Your task to perform on an android device: Open calendar and show me the second week of next month Image 0: 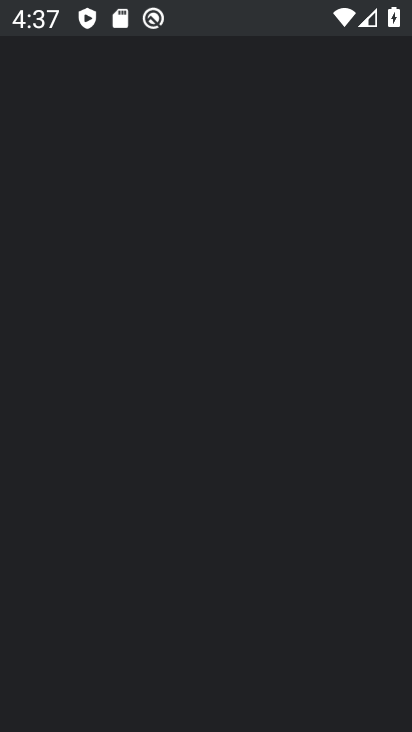
Step 0: drag from (398, 405) to (410, 236)
Your task to perform on an android device: Open calendar and show me the second week of next month Image 1: 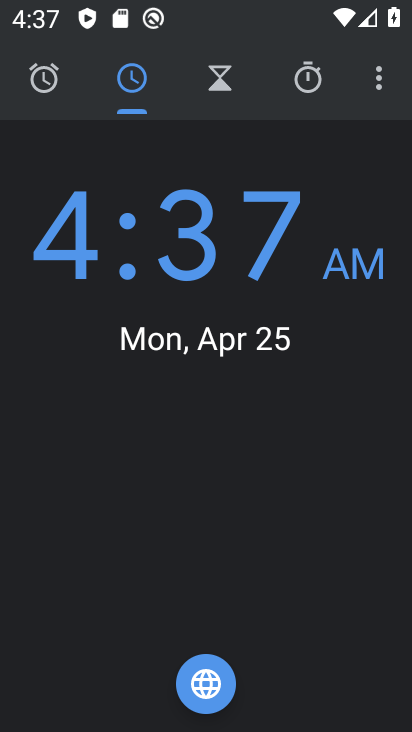
Step 1: press home button
Your task to perform on an android device: Open calendar and show me the second week of next month Image 2: 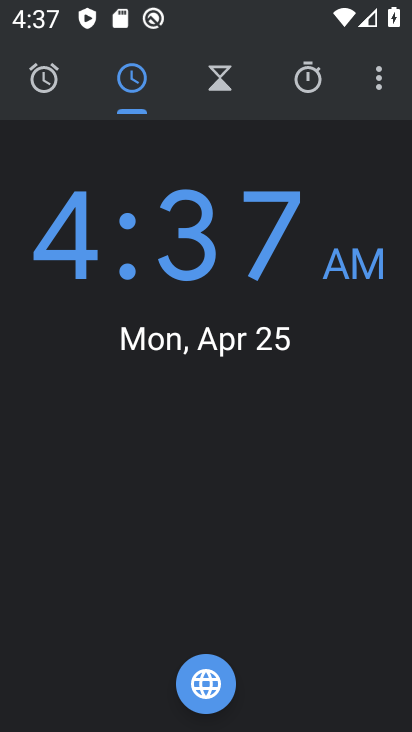
Step 2: drag from (410, 236) to (411, 463)
Your task to perform on an android device: Open calendar and show me the second week of next month Image 3: 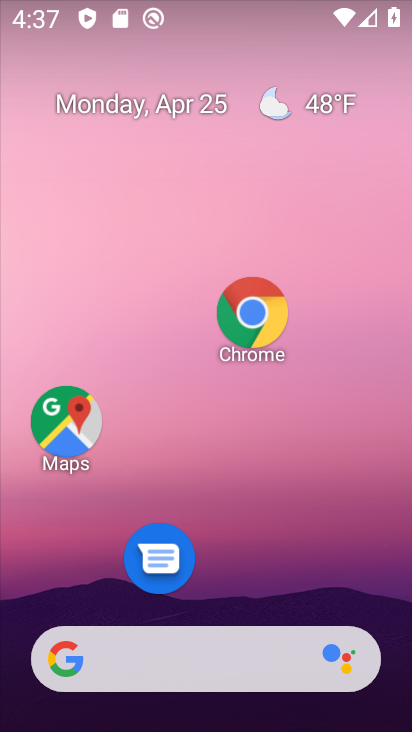
Step 3: drag from (343, 521) to (410, 77)
Your task to perform on an android device: Open calendar and show me the second week of next month Image 4: 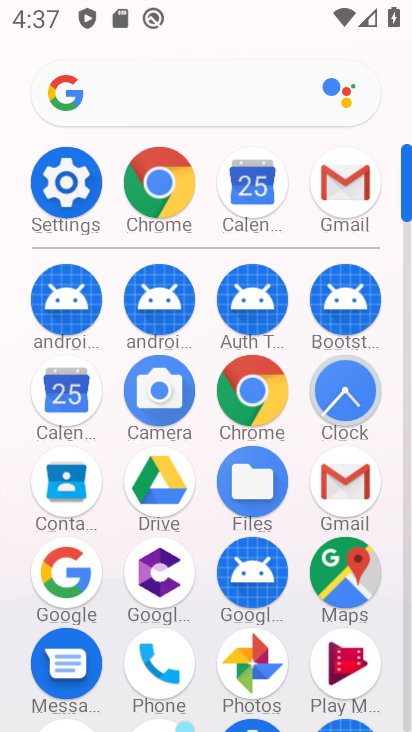
Step 4: click (60, 393)
Your task to perform on an android device: Open calendar and show me the second week of next month Image 5: 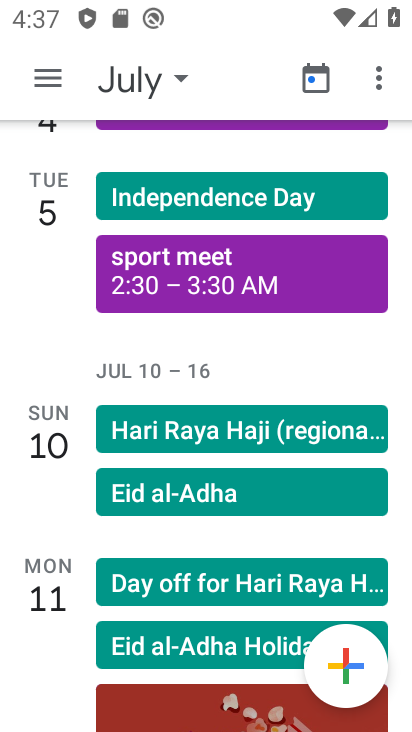
Step 5: click (166, 103)
Your task to perform on an android device: Open calendar and show me the second week of next month Image 6: 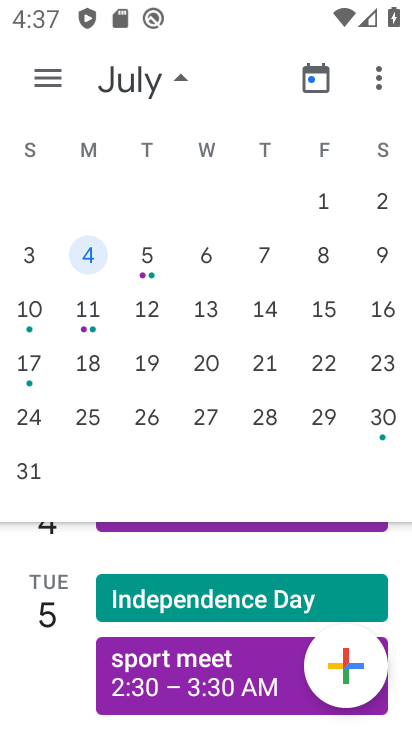
Step 6: drag from (266, 375) to (10, 649)
Your task to perform on an android device: Open calendar and show me the second week of next month Image 7: 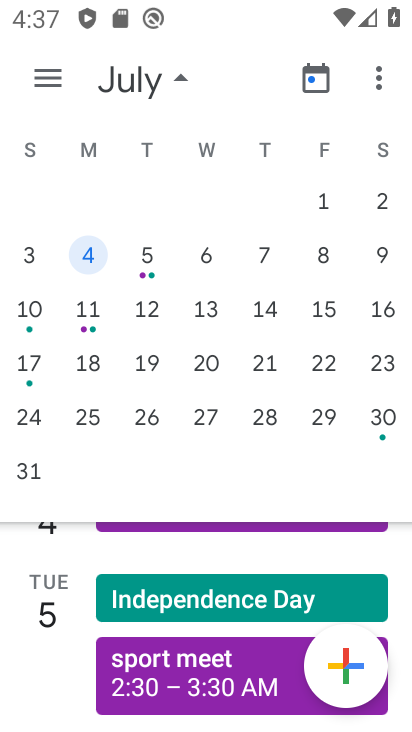
Step 7: click (266, 315)
Your task to perform on an android device: Open calendar and show me the second week of next month Image 8: 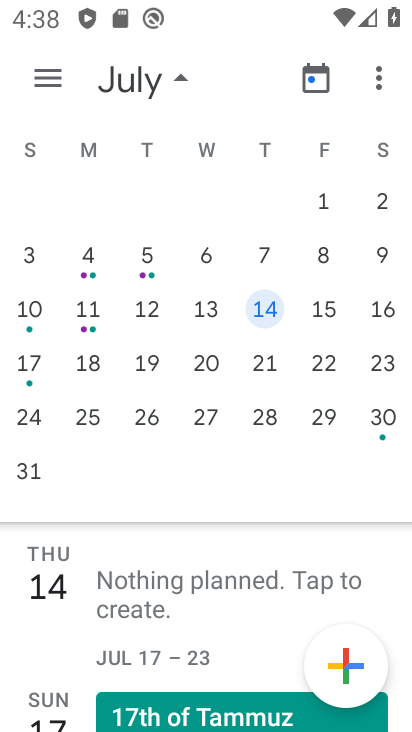
Step 8: task complete